Your task to perform on an android device: Open the Play Movies app and select the watchlist tab. Image 0: 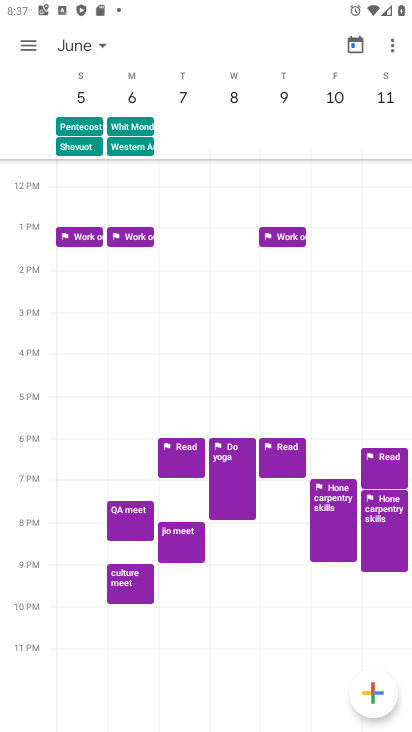
Step 0: press home button
Your task to perform on an android device: Open the Play Movies app and select the watchlist tab. Image 1: 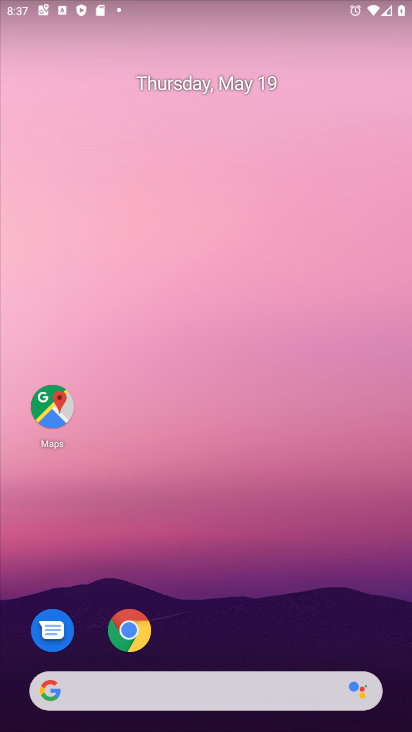
Step 1: drag from (386, 623) to (369, 20)
Your task to perform on an android device: Open the Play Movies app and select the watchlist tab. Image 2: 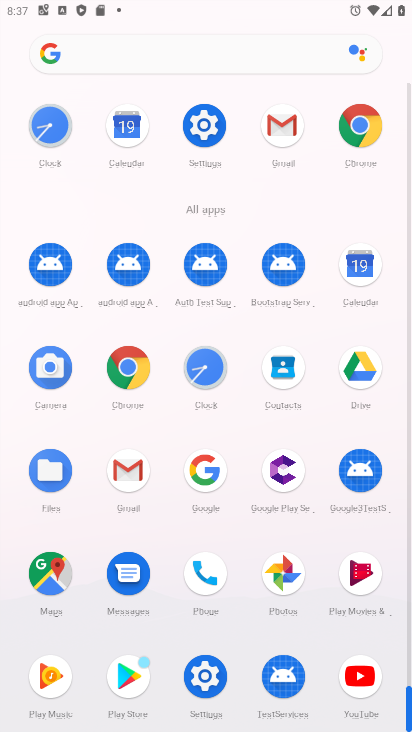
Step 2: click (358, 573)
Your task to perform on an android device: Open the Play Movies app and select the watchlist tab. Image 3: 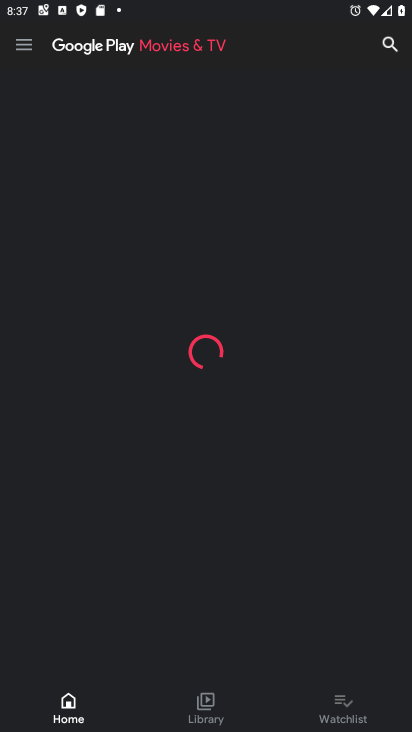
Step 3: click (340, 701)
Your task to perform on an android device: Open the Play Movies app and select the watchlist tab. Image 4: 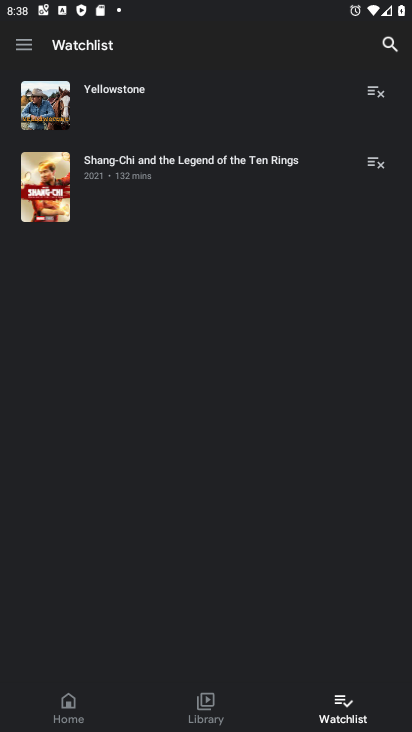
Step 4: task complete